Your task to perform on an android device: Search for pizza restaurants on Maps Image 0: 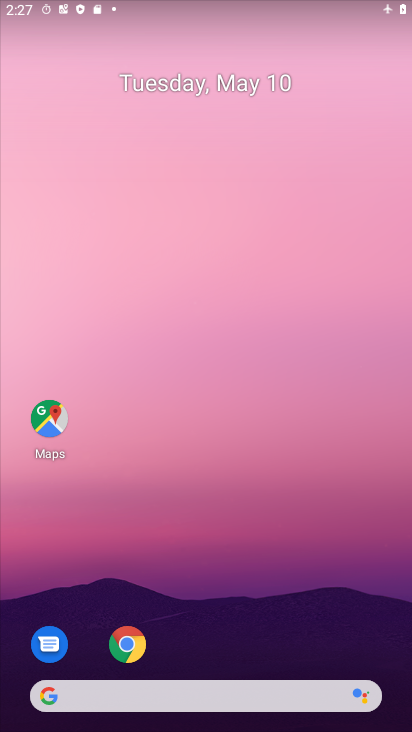
Step 0: drag from (195, 676) to (196, 214)
Your task to perform on an android device: Search for pizza restaurants on Maps Image 1: 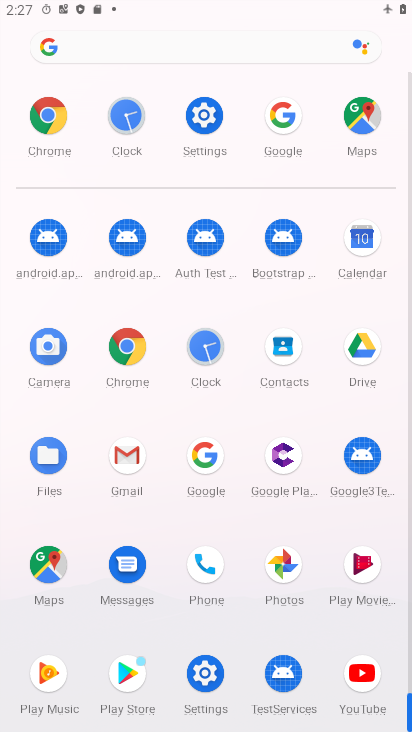
Step 1: click (48, 575)
Your task to perform on an android device: Search for pizza restaurants on Maps Image 2: 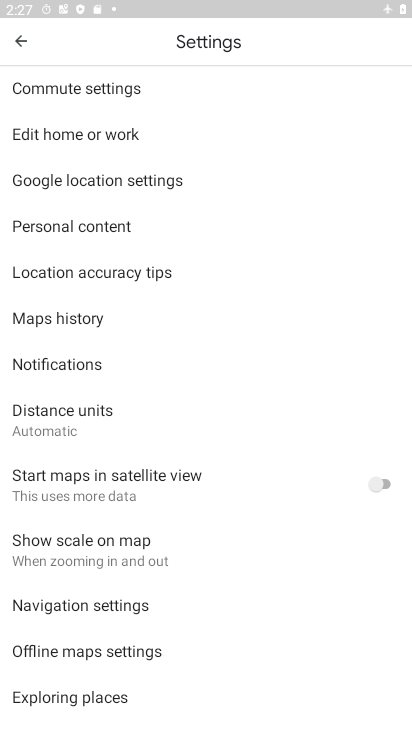
Step 2: press back button
Your task to perform on an android device: Search for pizza restaurants on Maps Image 3: 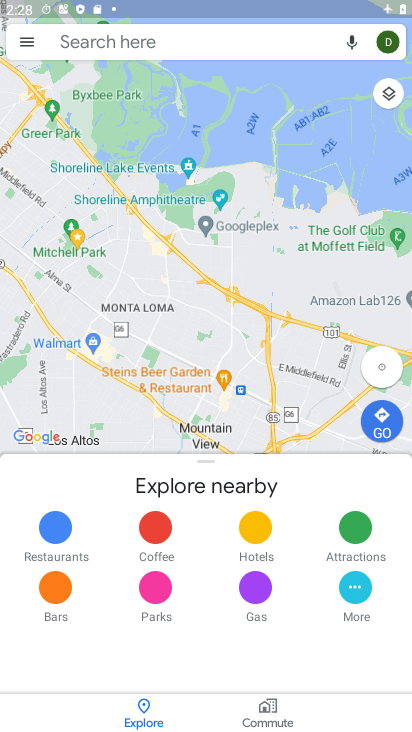
Step 3: click (172, 38)
Your task to perform on an android device: Search for pizza restaurants on Maps Image 4: 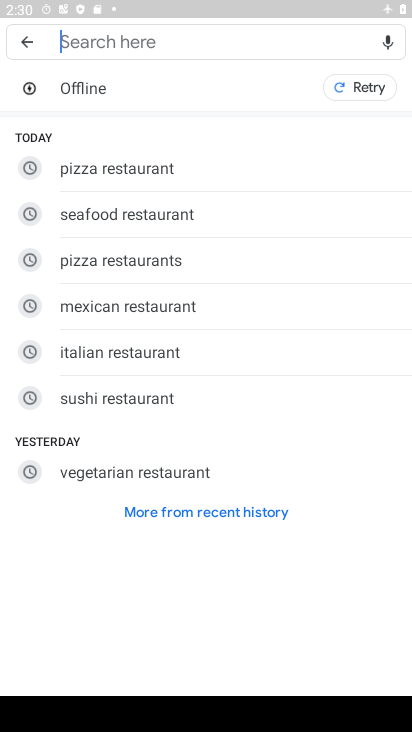
Step 4: click (154, 177)
Your task to perform on an android device: Search for pizza restaurants on Maps Image 5: 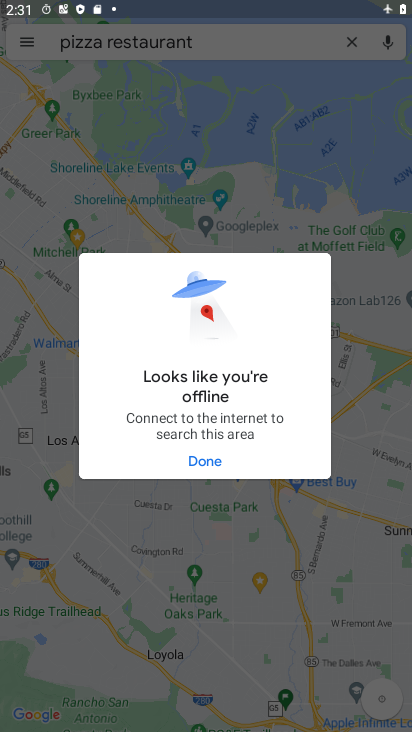
Step 5: click (197, 459)
Your task to perform on an android device: Search for pizza restaurants on Maps Image 6: 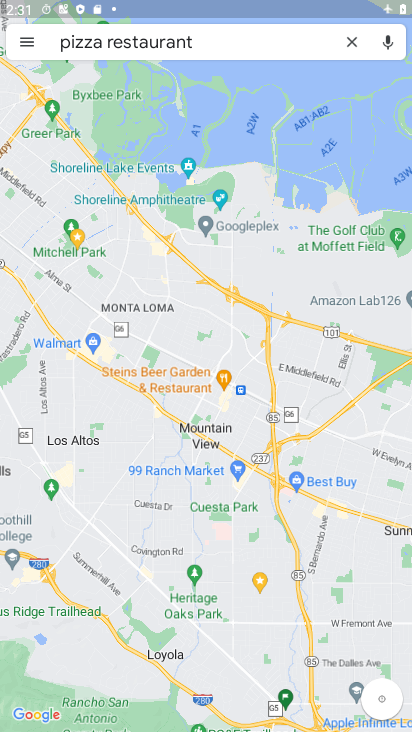
Step 6: click (211, 460)
Your task to perform on an android device: Search for pizza restaurants on Maps Image 7: 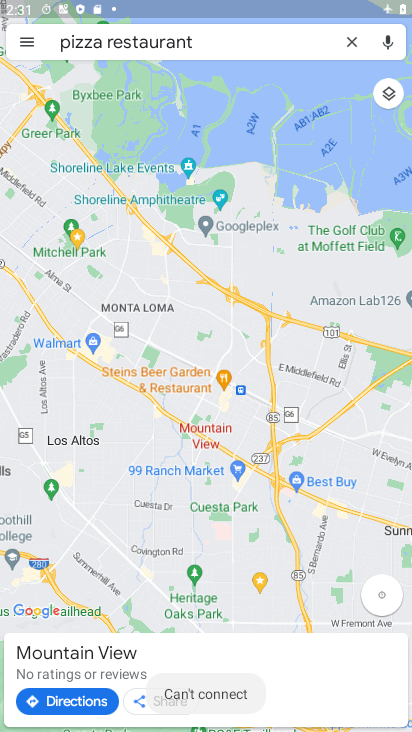
Step 7: task complete